Your task to perform on an android device: toggle priority inbox in the gmail app Image 0: 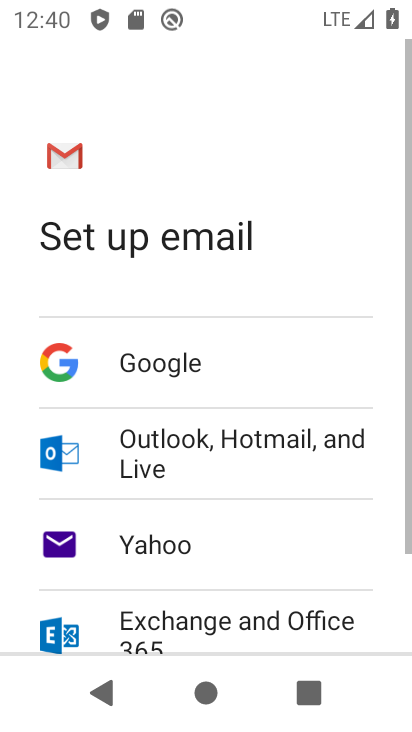
Step 0: press home button
Your task to perform on an android device: toggle priority inbox in the gmail app Image 1: 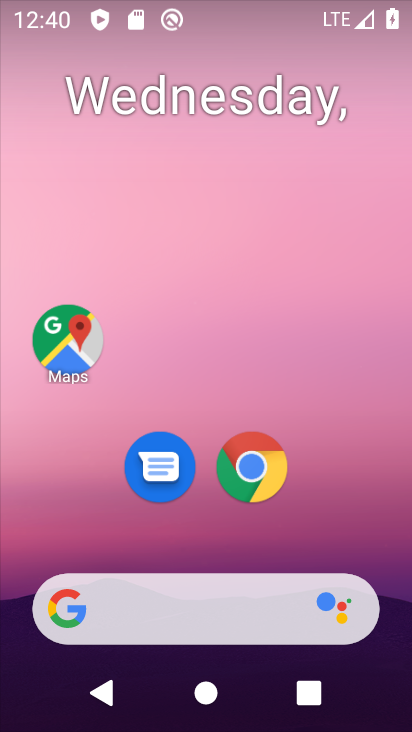
Step 1: drag from (364, 528) to (355, 153)
Your task to perform on an android device: toggle priority inbox in the gmail app Image 2: 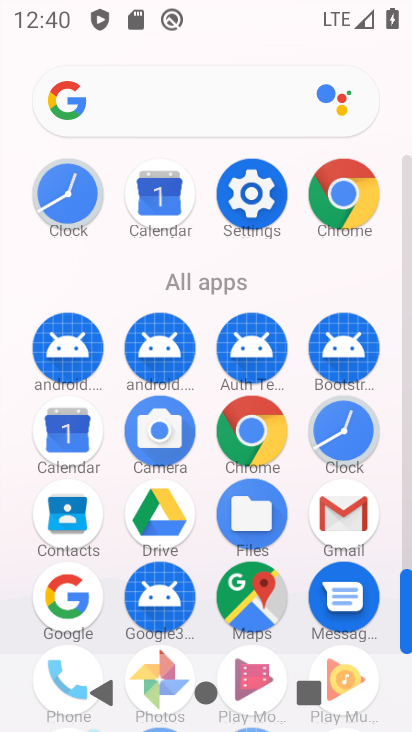
Step 2: click (358, 518)
Your task to perform on an android device: toggle priority inbox in the gmail app Image 3: 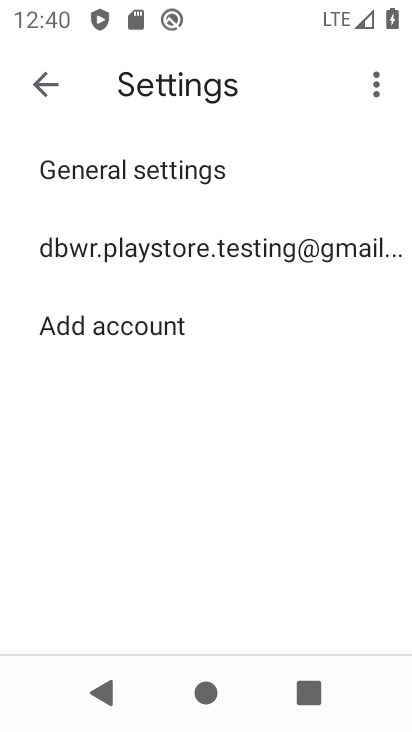
Step 3: click (223, 267)
Your task to perform on an android device: toggle priority inbox in the gmail app Image 4: 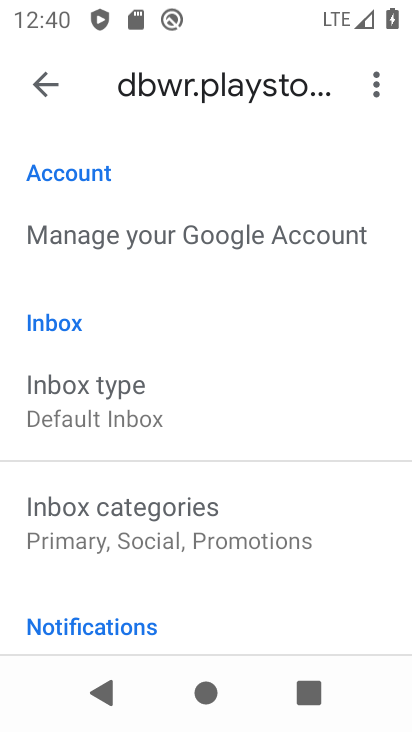
Step 4: drag from (315, 471) to (331, 371)
Your task to perform on an android device: toggle priority inbox in the gmail app Image 5: 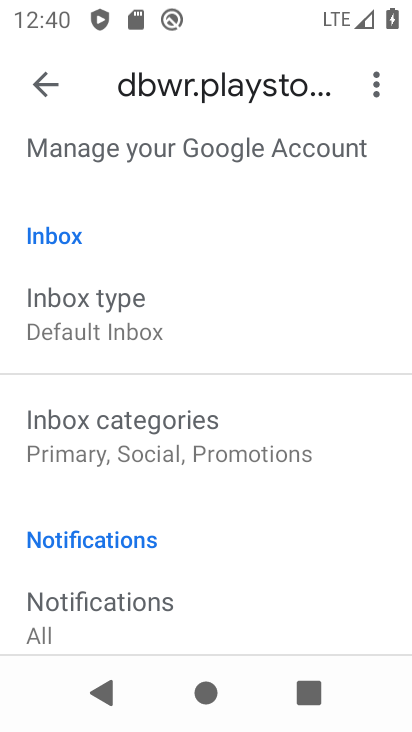
Step 5: drag from (350, 519) to (348, 403)
Your task to perform on an android device: toggle priority inbox in the gmail app Image 6: 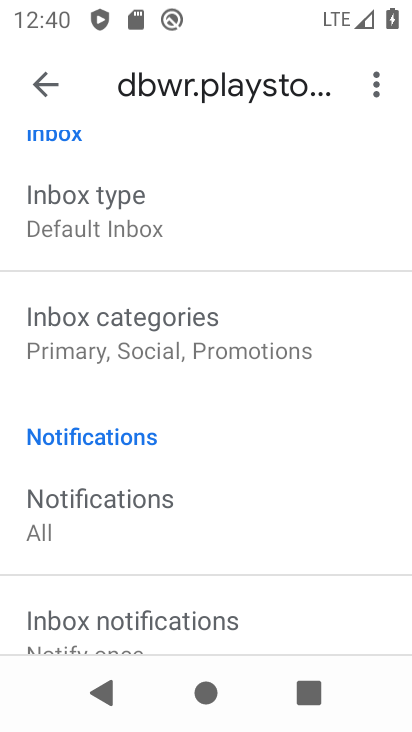
Step 6: click (176, 229)
Your task to perform on an android device: toggle priority inbox in the gmail app Image 7: 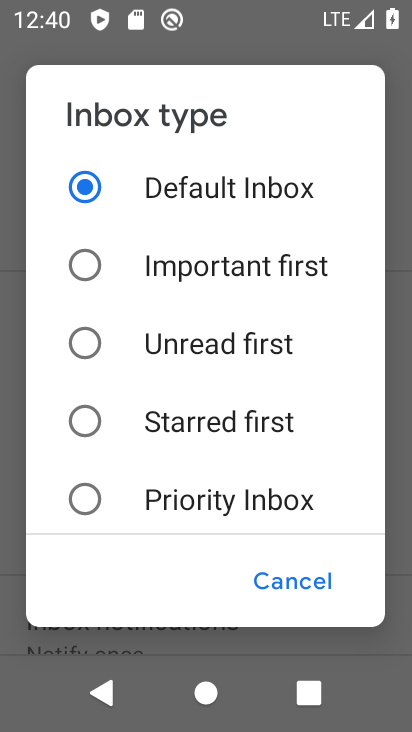
Step 7: click (186, 493)
Your task to perform on an android device: toggle priority inbox in the gmail app Image 8: 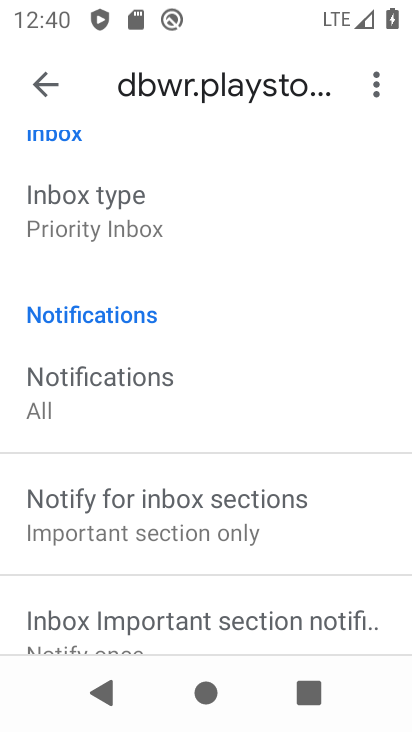
Step 8: task complete